Your task to perform on an android device: Open Google Maps Image 0: 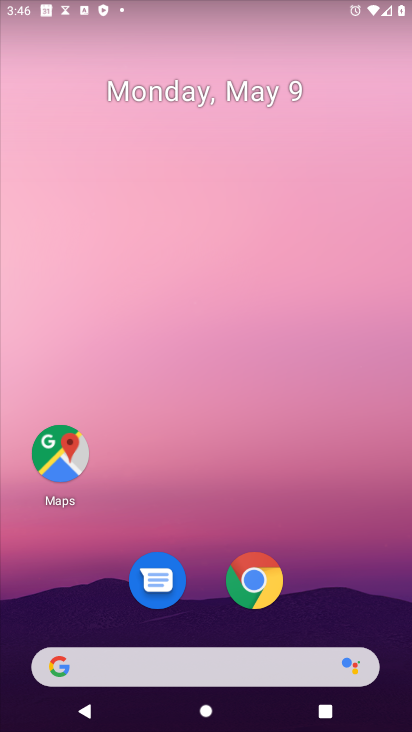
Step 0: click (55, 447)
Your task to perform on an android device: Open Google Maps Image 1: 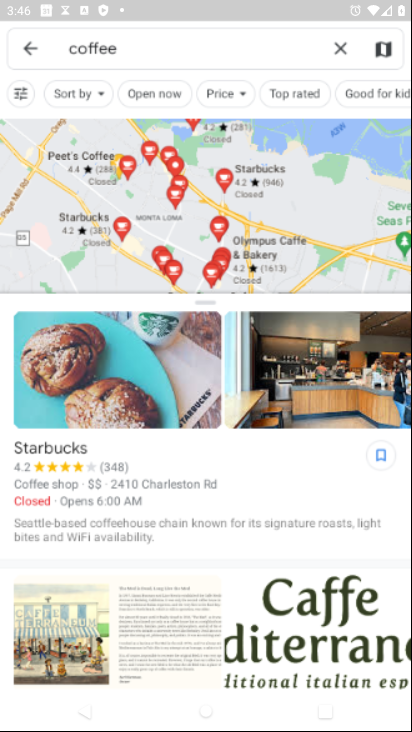
Step 1: task complete